Your task to perform on an android device: open chrome privacy settings Image 0: 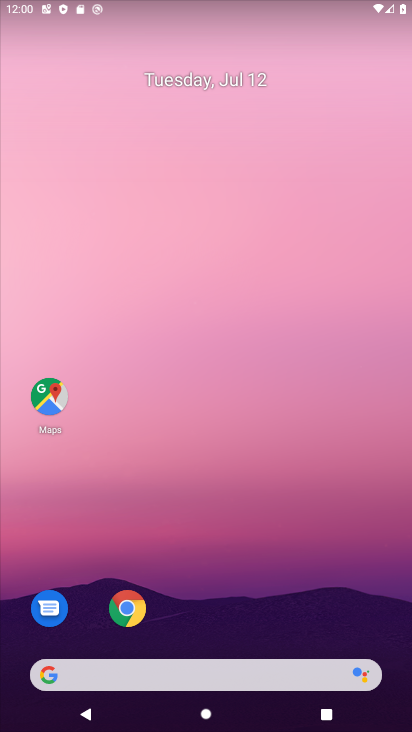
Step 0: click (124, 601)
Your task to perform on an android device: open chrome privacy settings Image 1: 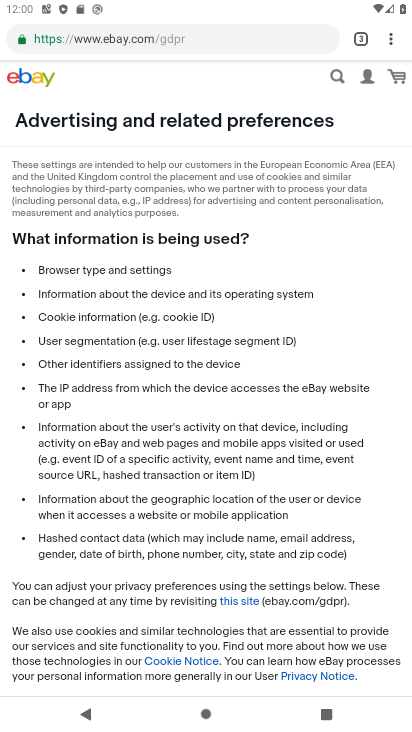
Step 1: click (390, 47)
Your task to perform on an android device: open chrome privacy settings Image 2: 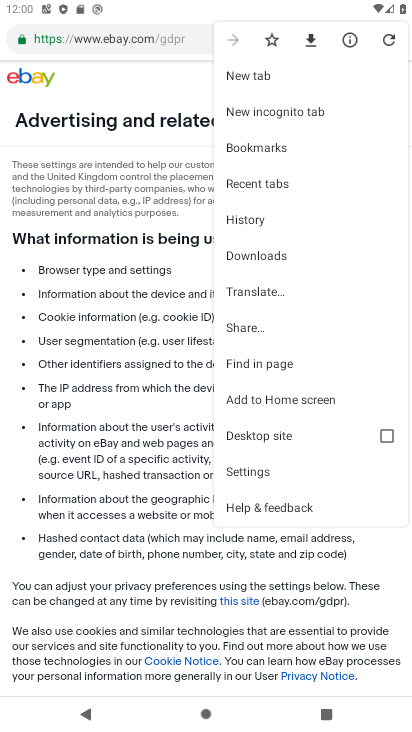
Step 2: click (293, 477)
Your task to perform on an android device: open chrome privacy settings Image 3: 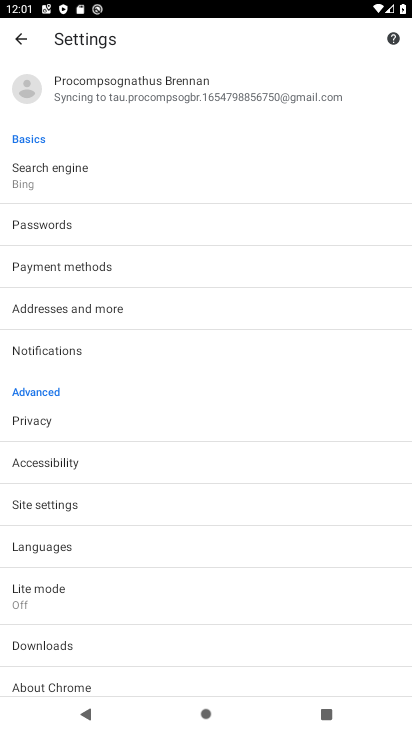
Step 3: click (192, 433)
Your task to perform on an android device: open chrome privacy settings Image 4: 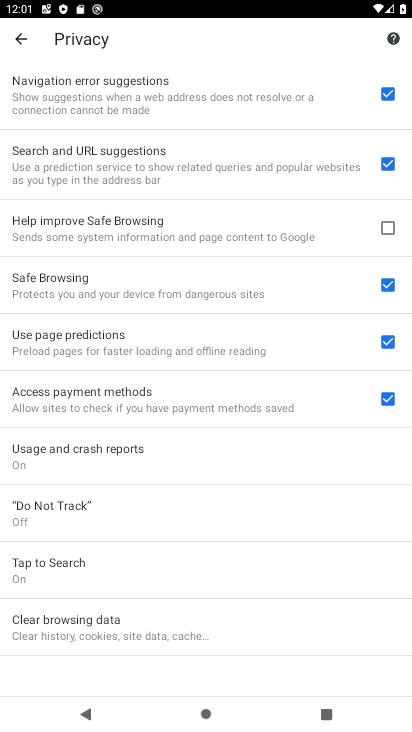
Step 4: click (43, 423)
Your task to perform on an android device: open chrome privacy settings Image 5: 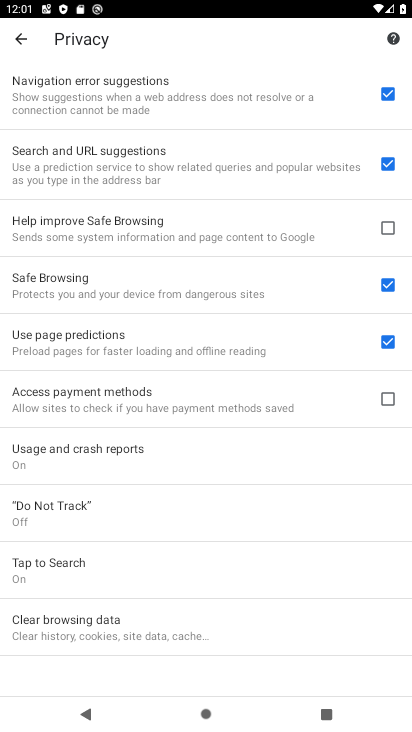
Step 5: task complete